Your task to perform on an android device: See recent photos Image 0: 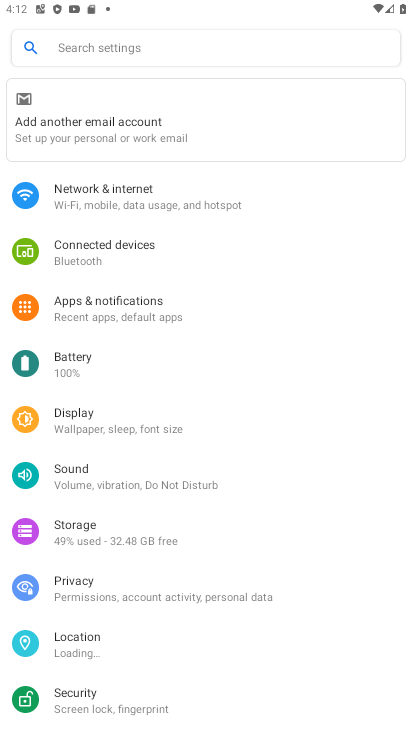
Step 0: press home button
Your task to perform on an android device: See recent photos Image 1: 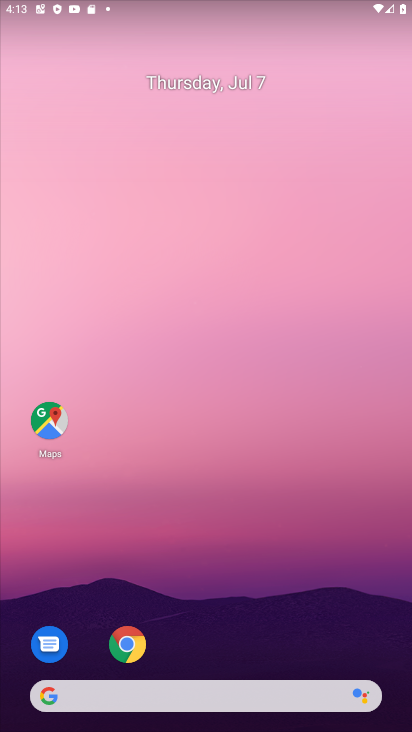
Step 1: drag from (198, 631) to (236, 211)
Your task to perform on an android device: See recent photos Image 2: 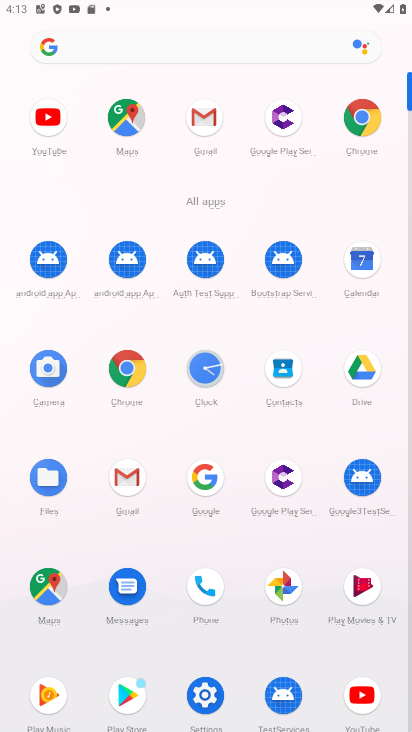
Step 2: click (284, 596)
Your task to perform on an android device: See recent photos Image 3: 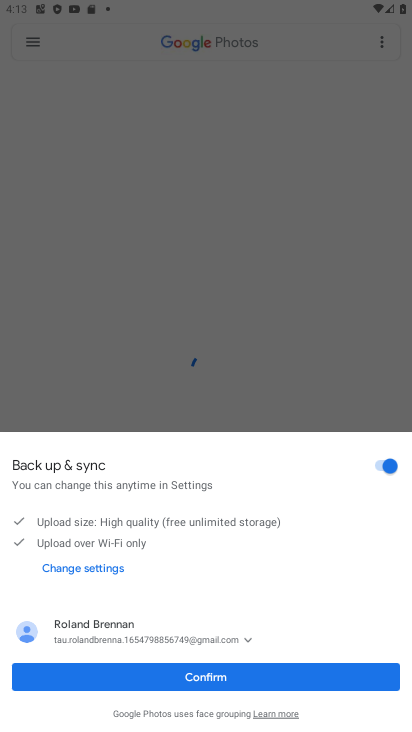
Step 3: click (208, 679)
Your task to perform on an android device: See recent photos Image 4: 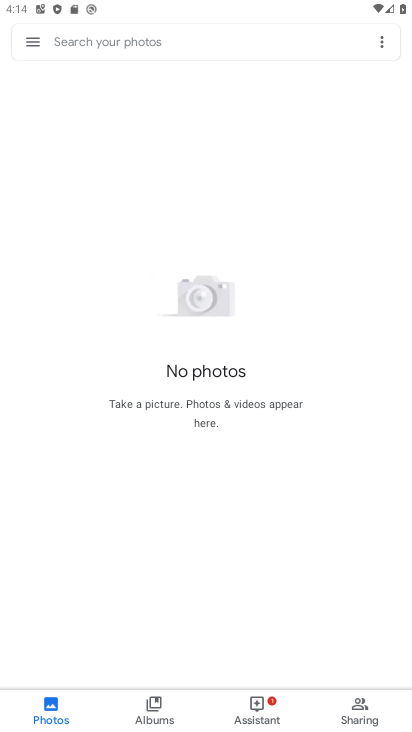
Step 4: task complete